Your task to perform on an android device: add a label to a message in the gmail app Image 0: 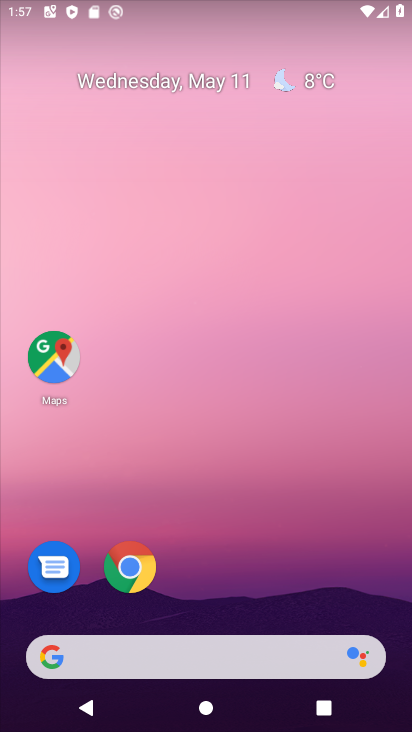
Step 0: drag from (302, 527) to (286, 162)
Your task to perform on an android device: add a label to a message in the gmail app Image 1: 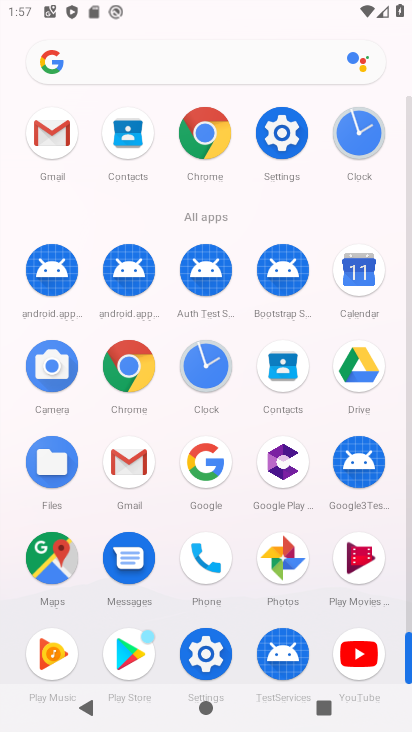
Step 1: click (135, 461)
Your task to perform on an android device: add a label to a message in the gmail app Image 2: 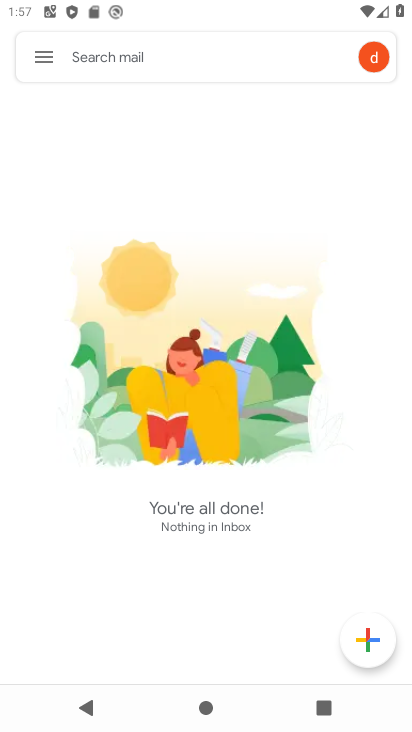
Step 2: click (46, 67)
Your task to perform on an android device: add a label to a message in the gmail app Image 3: 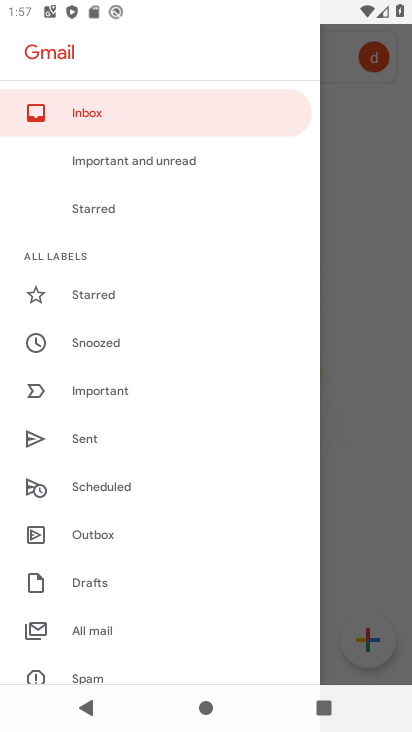
Step 3: click (46, 67)
Your task to perform on an android device: add a label to a message in the gmail app Image 4: 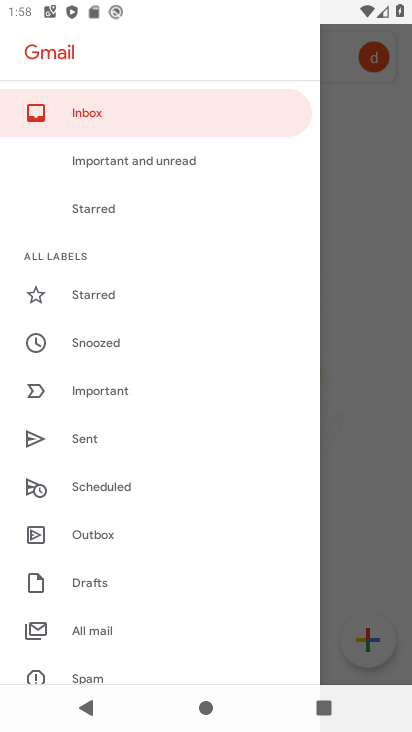
Step 4: click (118, 626)
Your task to perform on an android device: add a label to a message in the gmail app Image 5: 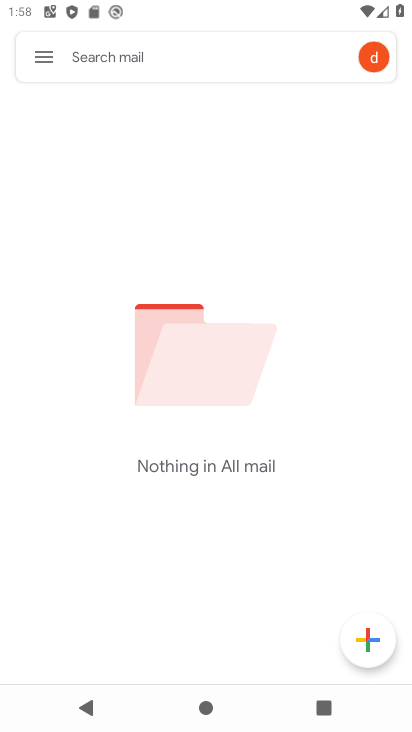
Step 5: task complete